Your task to perform on an android device: Go to Android settings Image 0: 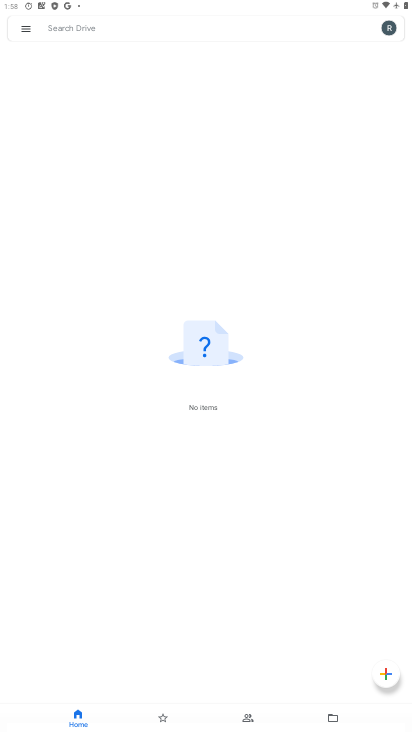
Step 0: press home button
Your task to perform on an android device: Go to Android settings Image 1: 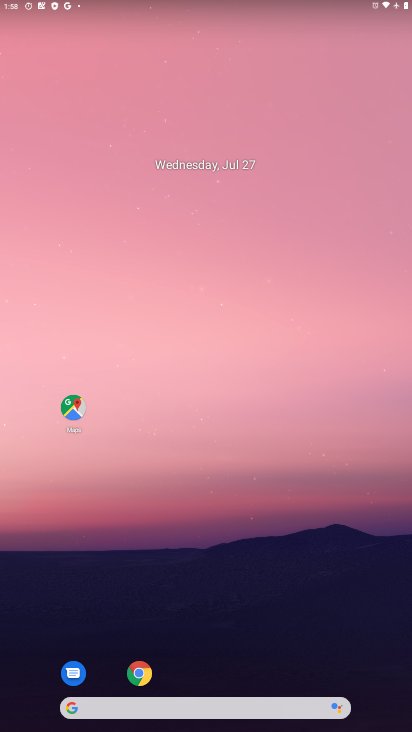
Step 1: drag from (230, 683) to (248, 29)
Your task to perform on an android device: Go to Android settings Image 2: 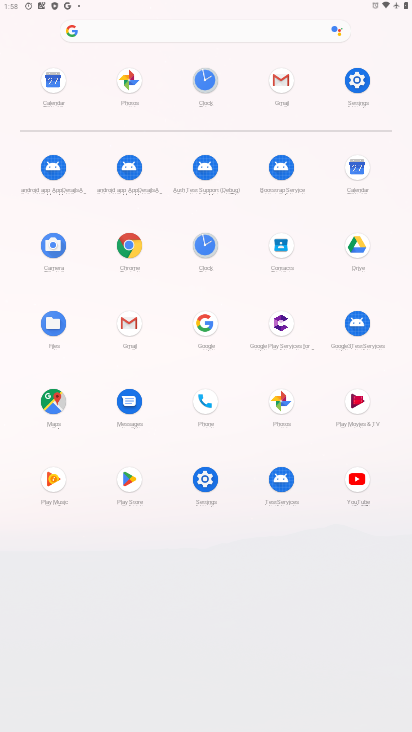
Step 2: click (357, 79)
Your task to perform on an android device: Go to Android settings Image 3: 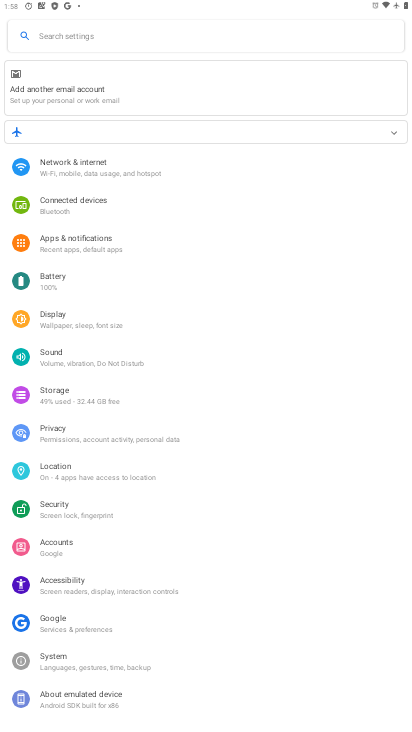
Step 3: task complete